Your task to perform on an android device: turn off smart reply in the gmail app Image 0: 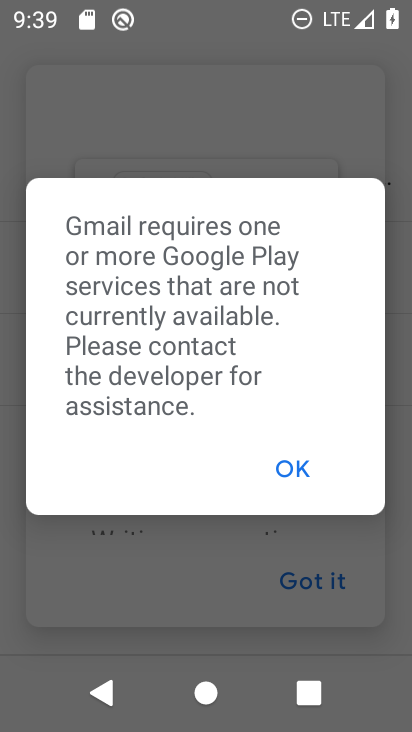
Step 0: press home button
Your task to perform on an android device: turn off smart reply in the gmail app Image 1: 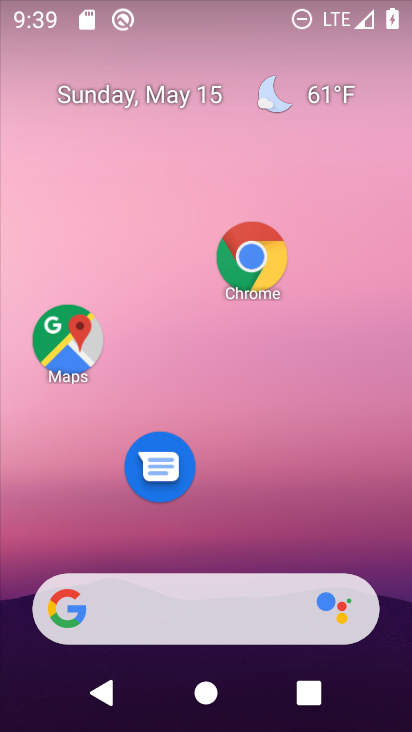
Step 1: click (277, 12)
Your task to perform on an android device: turn off smart reply in the gmail app Image 2: 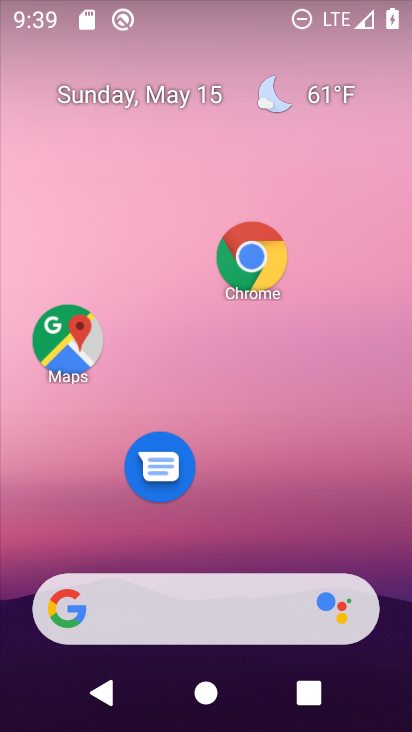
Step 2: drag from (239, 541) to (272, 38)
Your task to perform on an android device: turn off smart reply in the gmail app Image 3: 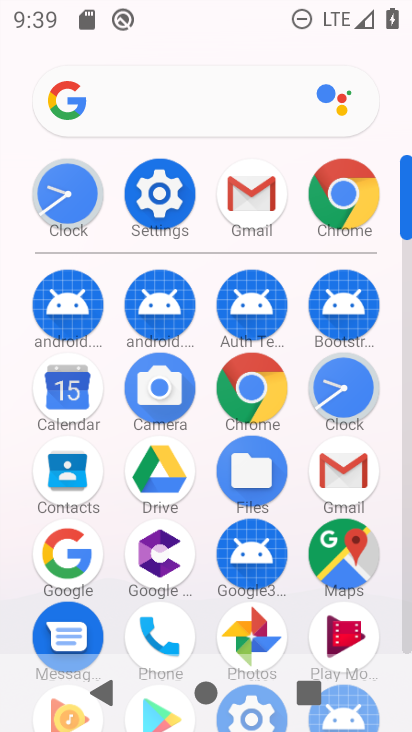
Step 3: click (251, 255)
Your task to perform on an android device: turn off smart reply in the gmail app Image 4: 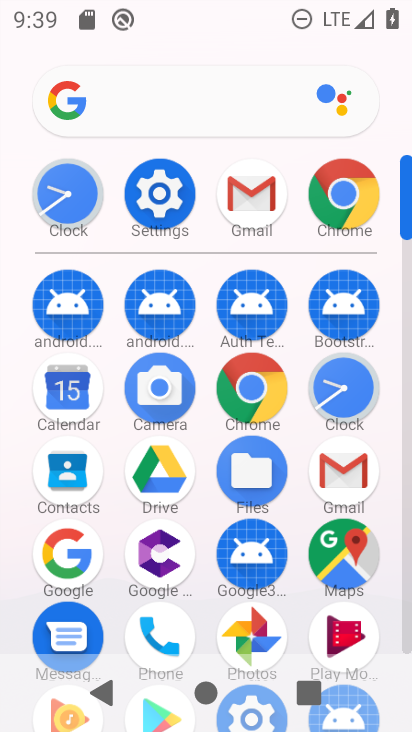
Step 4: click (254, 210)
Your task to perform on an android device: turn off smart reply in the gmail app Image 5: 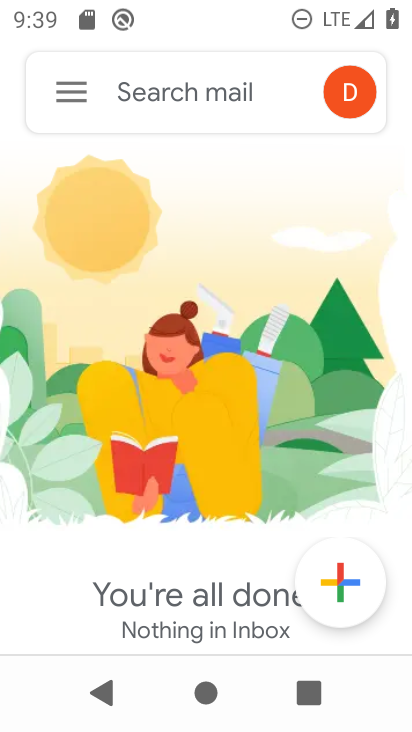
Step 5: click (71, 100)
Your task to perform on an android device: turn off smart reply in the gmail app Image 6: 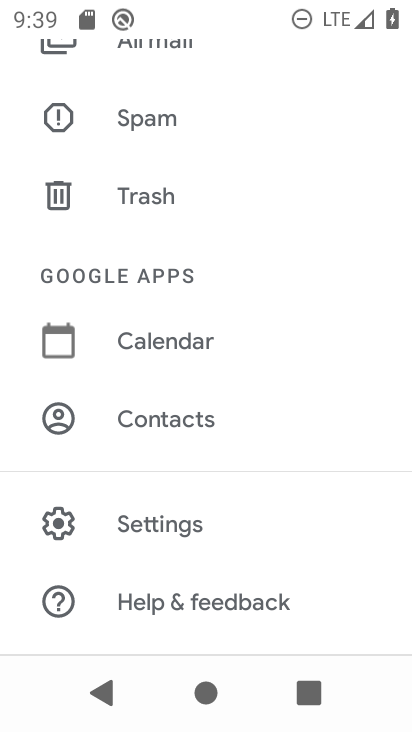
Step 6: click (114, 531)
Your task to perform on an android device: turn off smart reply in the gmail app Image 7: 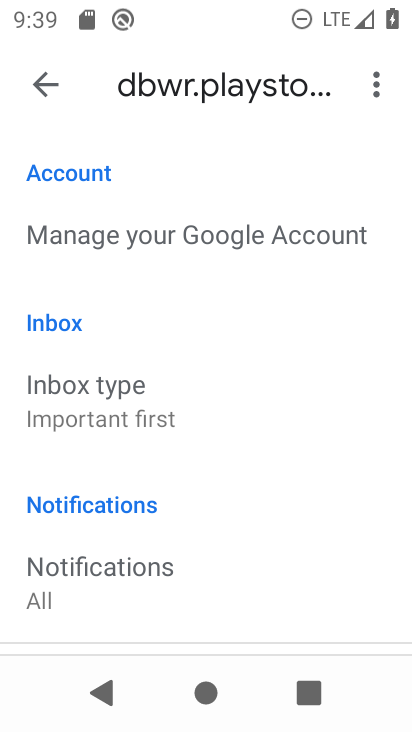
Step 7: drag from (239, 568) to (260, 113)
Your task to perform on an android device: turn off smart reply in the gmail app Image 8: 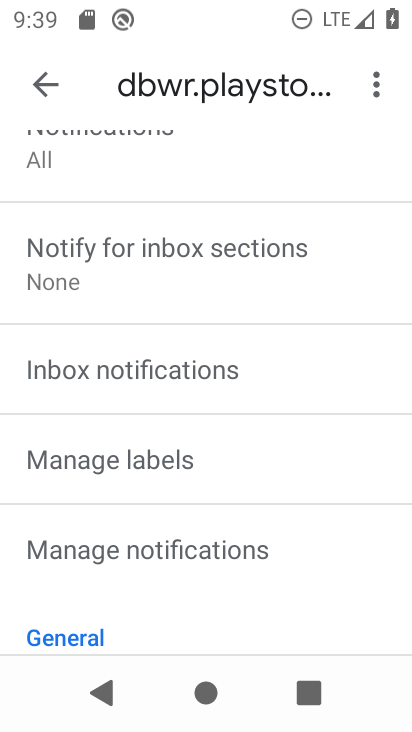
Step 8: click (260, 114)
Your task to perform on an android device: turn off smart reply in the gmail app Image 9: 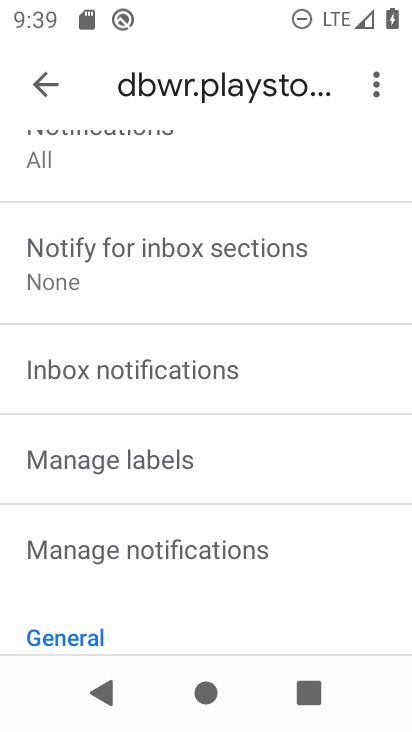
Step 9: drag from (151, 588) to (180, 213)
Your task to perform on an android device: turn off smart reply in the gmail app Image 10: 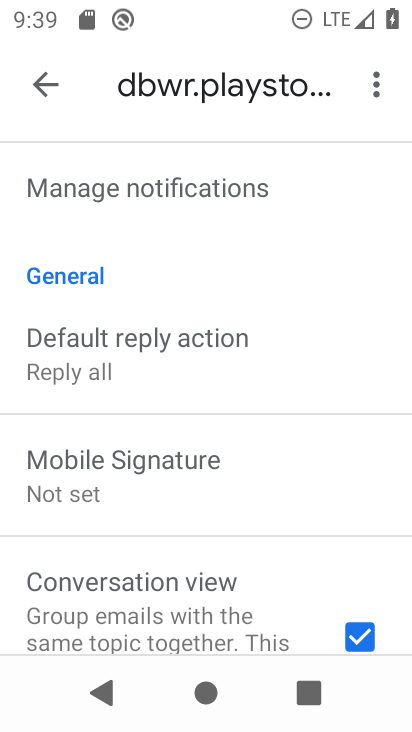
Step 10: drag from (171, 585) to (224, 166)
Your task to perform on an android device: turn off smart reply in the gmail app Image 11: 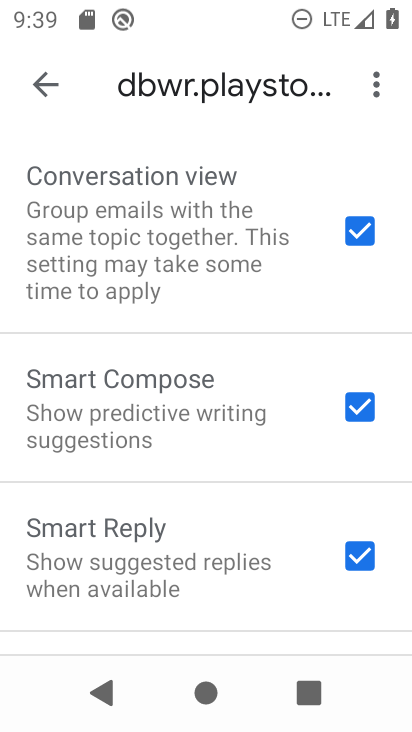
Step 11: drag from (93, 661) to (166, 303)
Your task to perform on an android device: turn off smart reply in the gmail app Image 12: 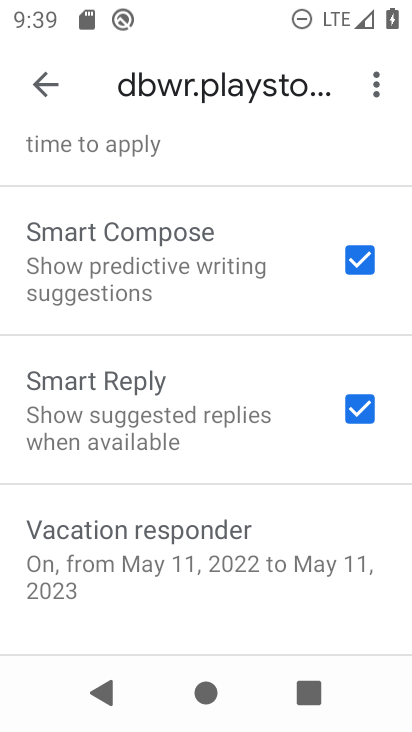
Step 12: click (363, 427)
Your task to perform on an android device: turn off smart reply in the gmail app Image 13: 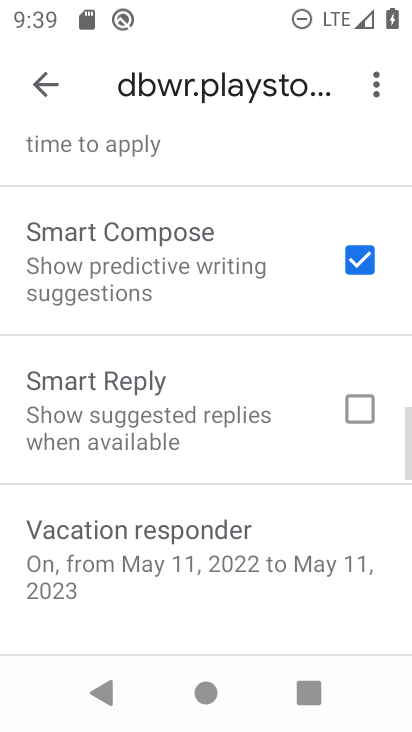
Step 13: task complete